Your task to perform on an android device: Go to notification settings Image 0: 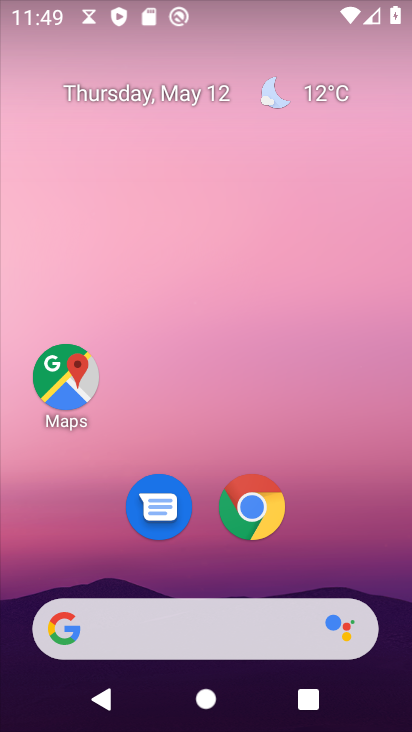
Step 0: drag from (289, 534) to (300, 192)
Your task to perform on an android device: Go to notification settings Image 1: 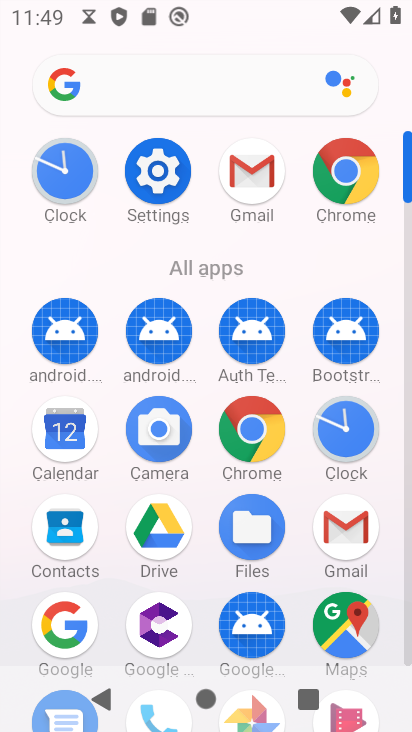
Step 1: click (164, 199)
Your task to perform on an android device: Go to notification settings Image 2: 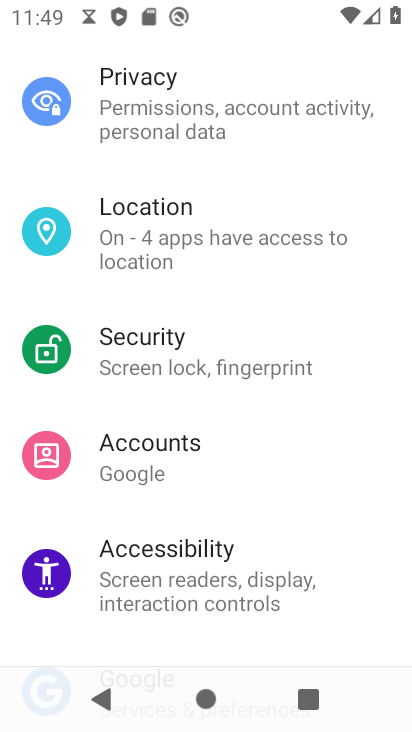
Step 2: drag from (271, 209) to (279, 559)
Your task to perform on an android device: Go to notification settings Image 3: 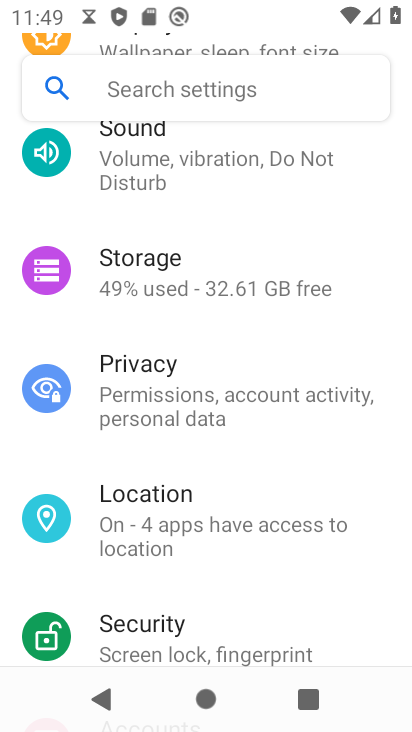
Step 3: drag from (298, 252) to (293, 594)
Your task to perform on an android device: Go to notification settings Image 4: 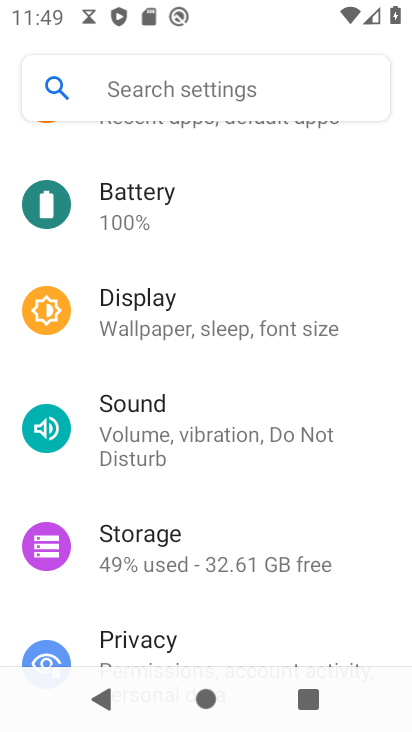
Step 4: drag from (278, 238) to (278, 628)
Your task to perform on an android device: Go to notification settings Image 5: 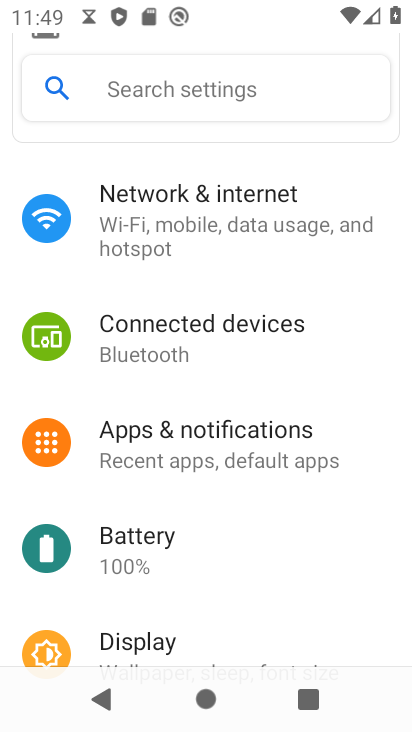
Step 5: click (239, 445)
Your task to perform on an android device: Go to notification settings Image 6: 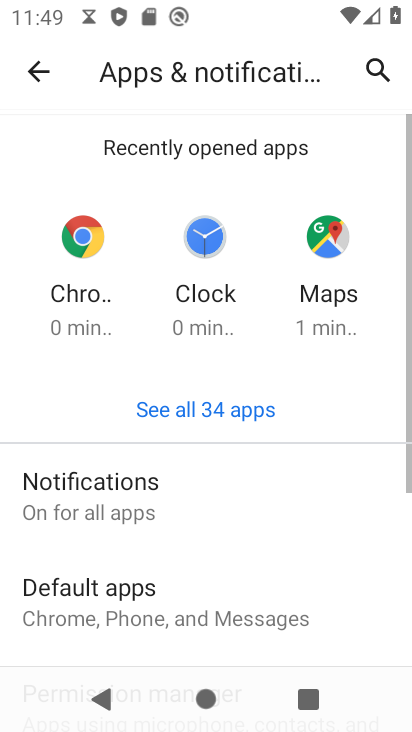
Step 6: click (207, 498)
Your task to perform on an android device: Go to notification settings Image 7: 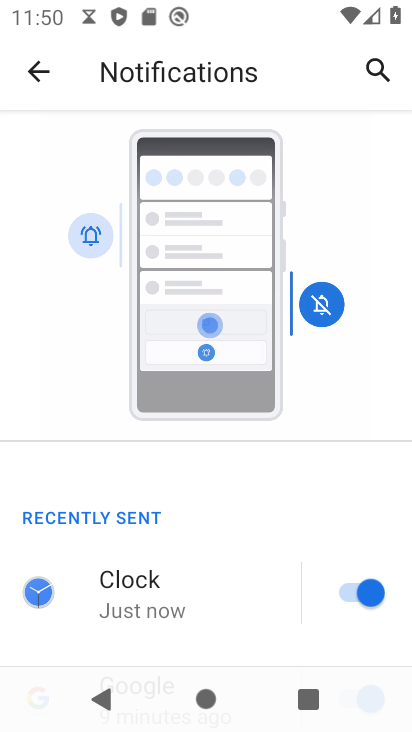
Step 7: task complete